Your task to perform on an android device: toggle data saver in the chrome app Image 0: 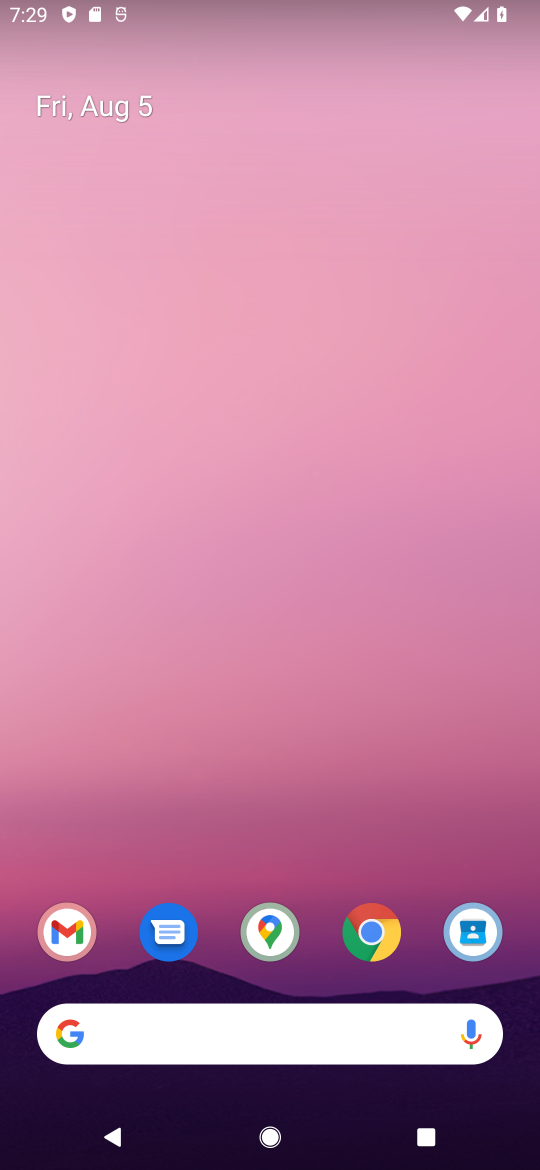
Step 0: drag from (372, 759) to (299, 89)
Your task to perform on an android device: toggle data saver in the chrome app Image 1: 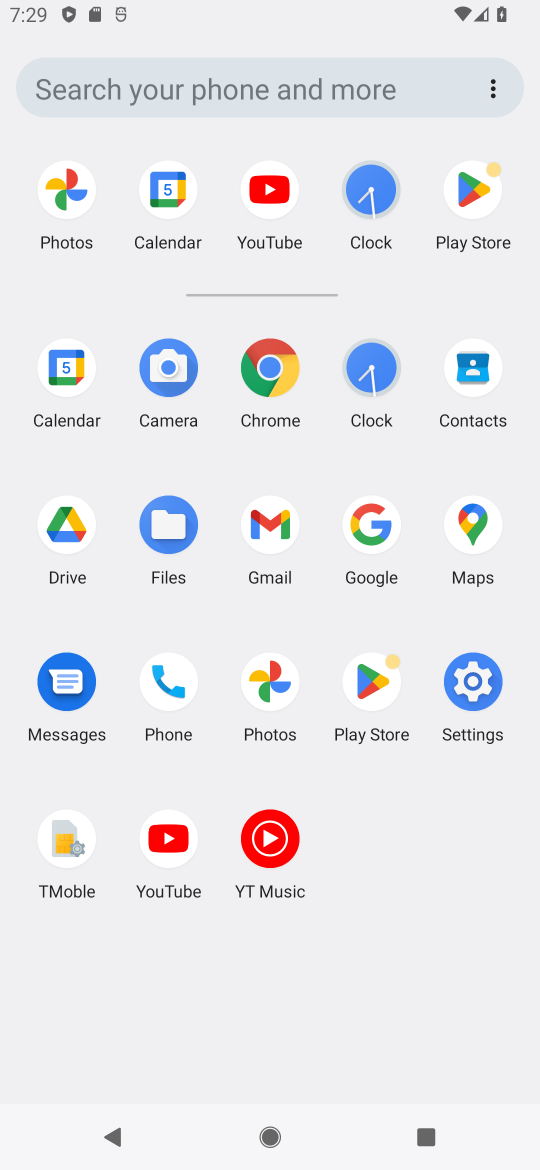
Step 1: click (264, 366)
Your task to perform on an android device: toggle data saver in the chrome app Image 2: 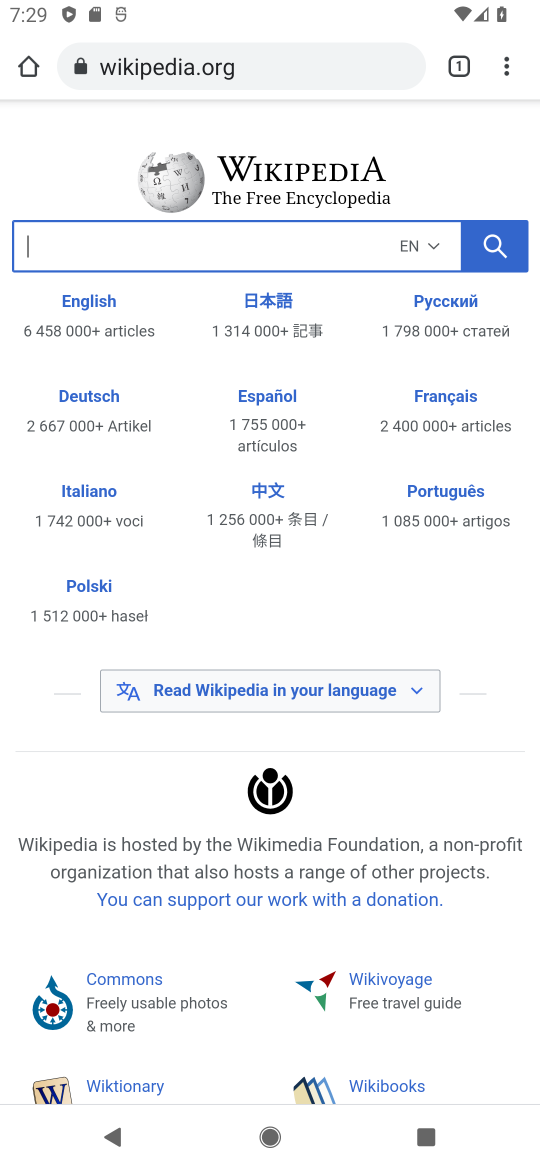
Step 2: drag from (511, 60) to (345, 865)
Your task to perform on an android device: toggle data saver in the chrome app Image 3: 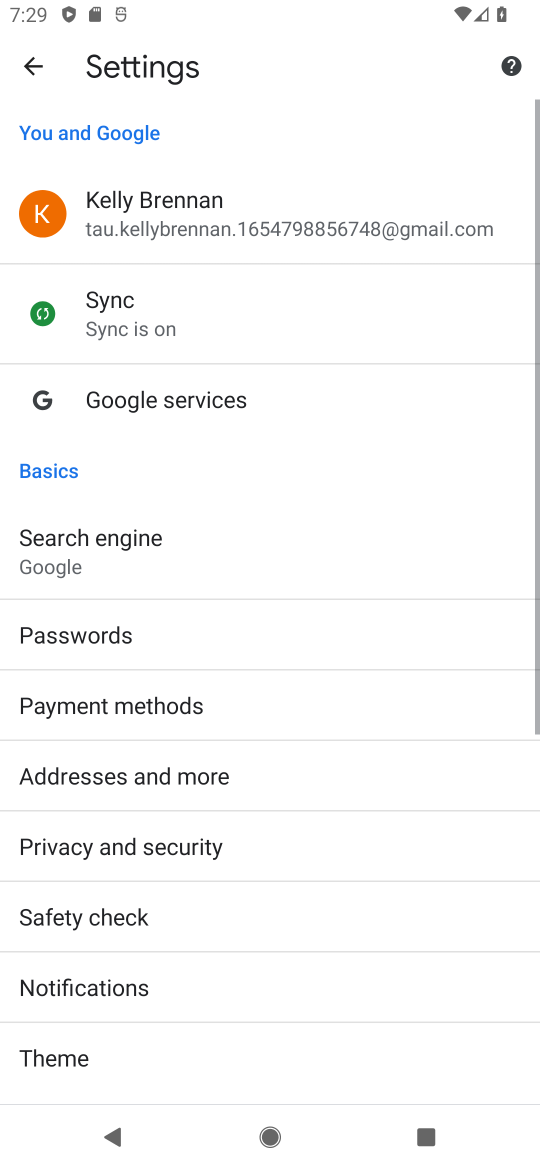
Step 3: drag from (309, 1046) to (299, 401)
Your task to perform on an android device: toggle data saver in the chrome app Image 4: 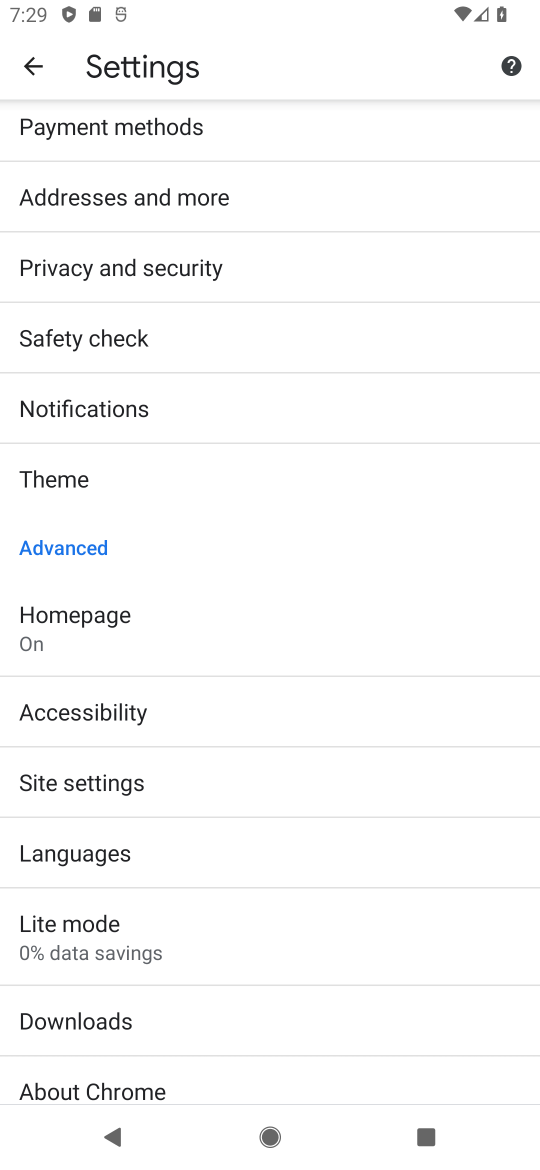
Step 4: click (144, 949)
Your task to perform on an android device: toggle data saver in the chrome app Image 5: 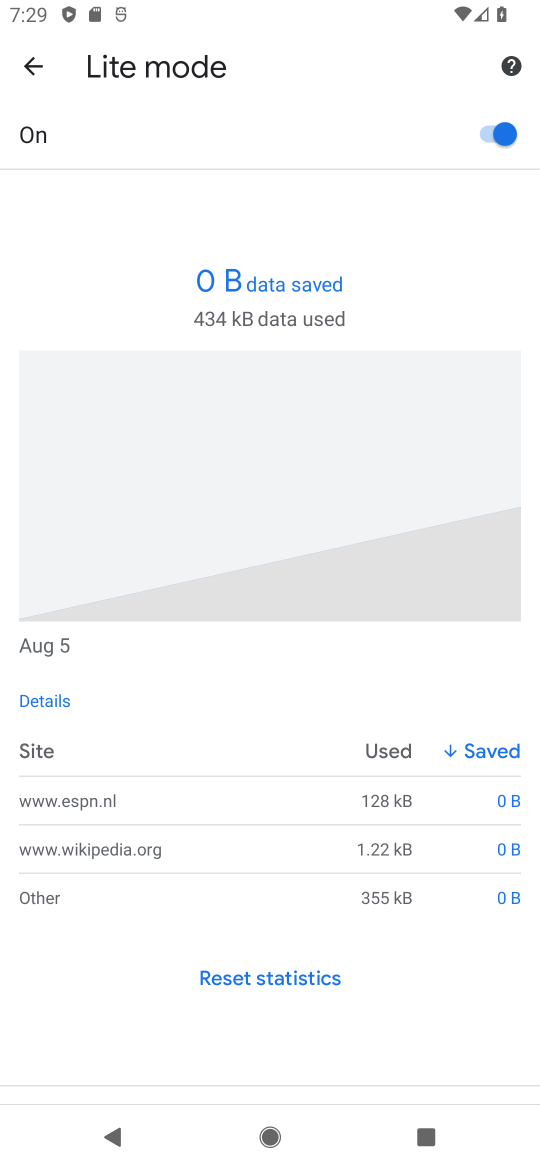
Step 5: click (510, 136)
Your task to perform on an android device: toggle data saver in the chrome app Image 6: 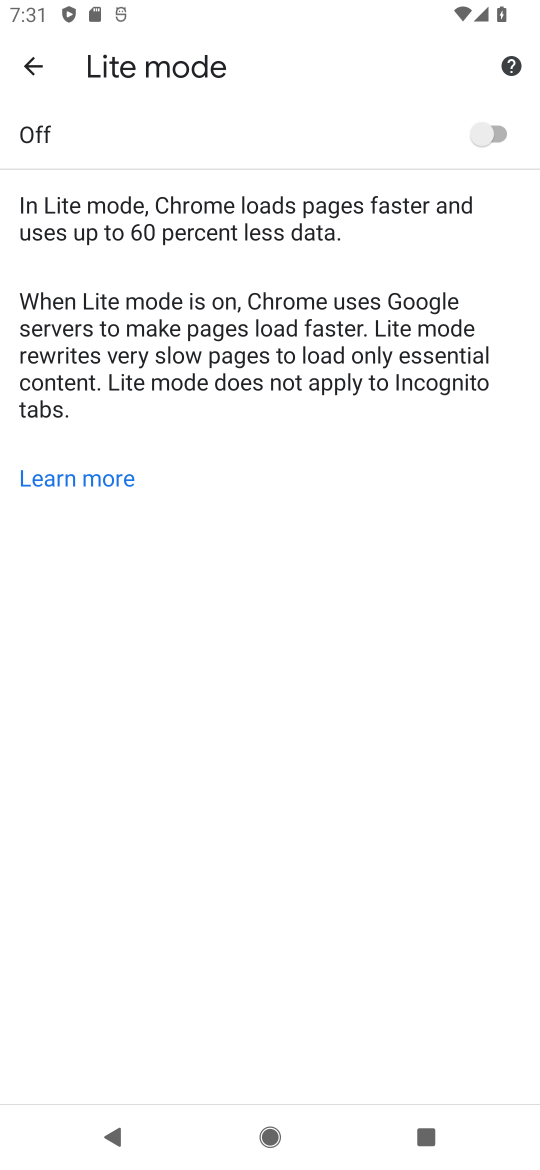
Step 6: click (495, 134)
Your task to perform on an android device: toggle data saver in the chrome app Image 7: 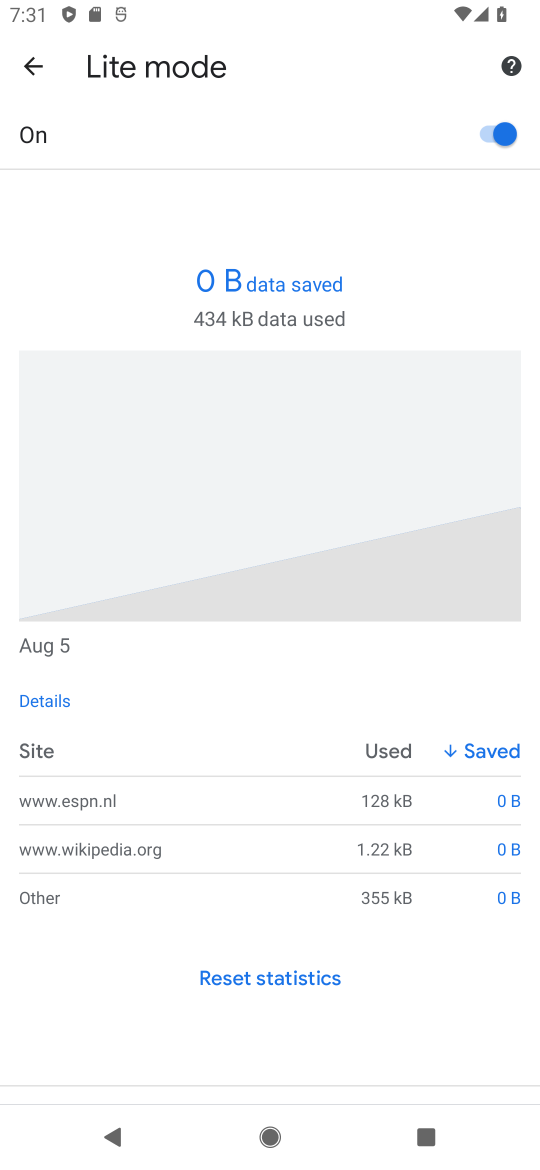
Step 7: task complete